Your task to perform on an android device: open a new tab in the chrome app Image 0: 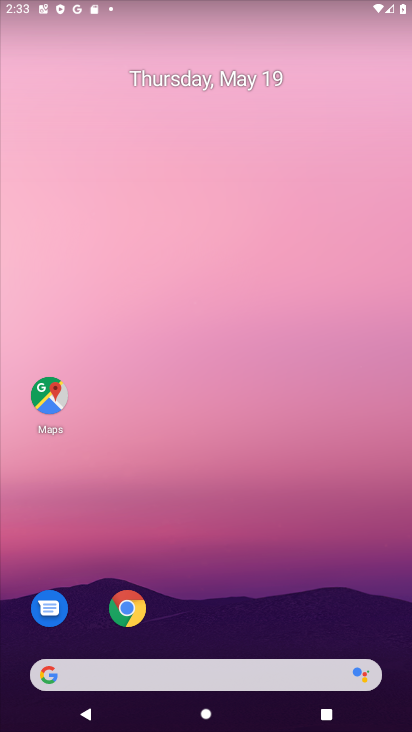
Step 0: click (134, 621)
Your task to perform on an android device: open a new tab in the chrome app Image 1: 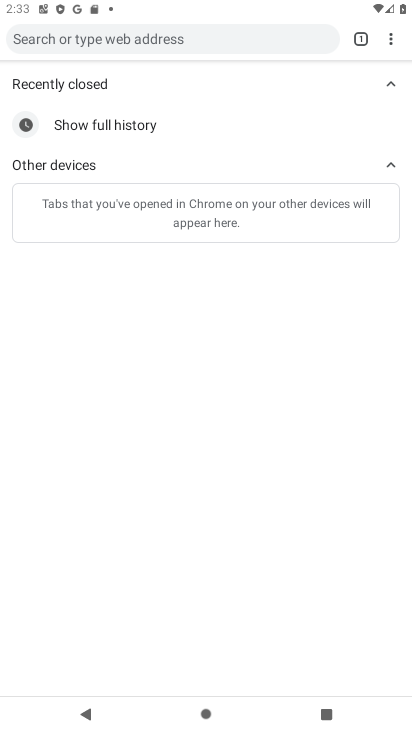
Step 1: click (383, 50)
Your task to perform on an android device: open a new tab in the chrome app Image 2: 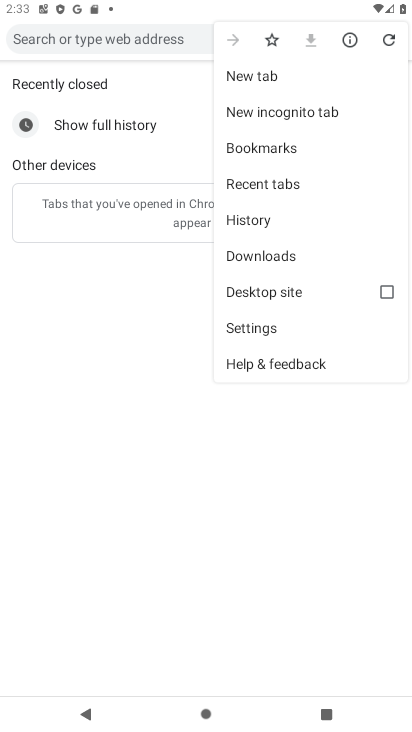
Step 2: click (349, 71)
Your task to perform on an android device: open a new tab in the chrome app Image 3: 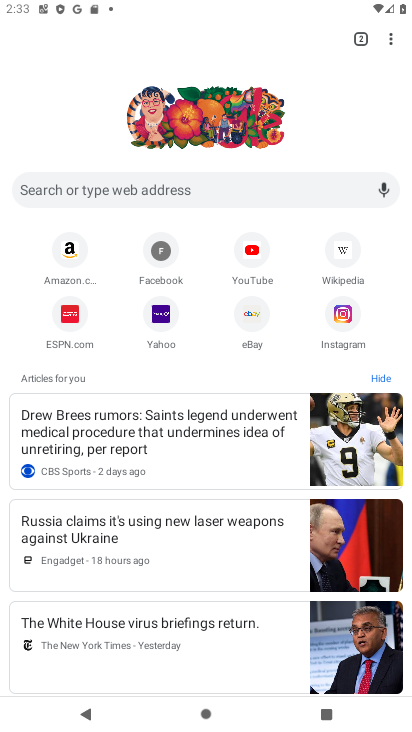
Step 3: task complete